Your task to perform on an android device: Show me productivity apps on the Play Store Image 0: 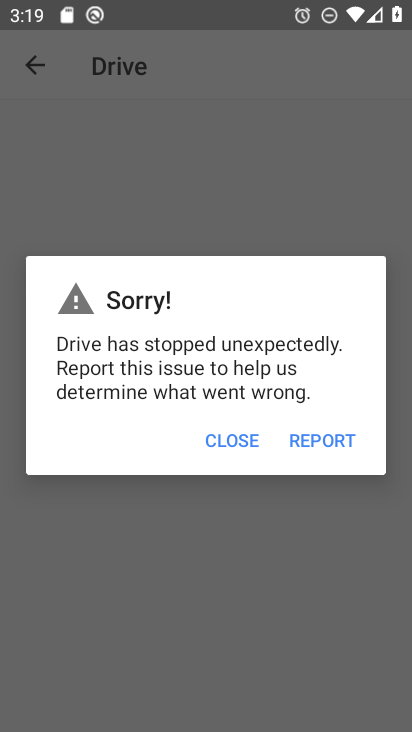
Step 0: press back button
Your task to perform on an android device: Show me productivity apps on the Play Store Image 1: 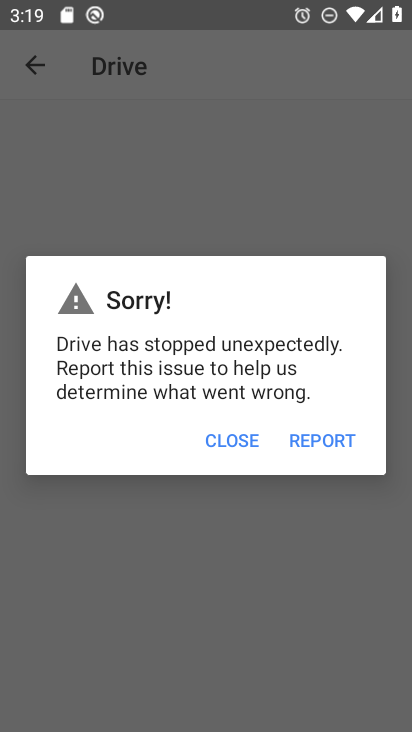
Step 1: press home button
Your task to perform on an android device: Show me productivity apps on the Play Store Image 2: 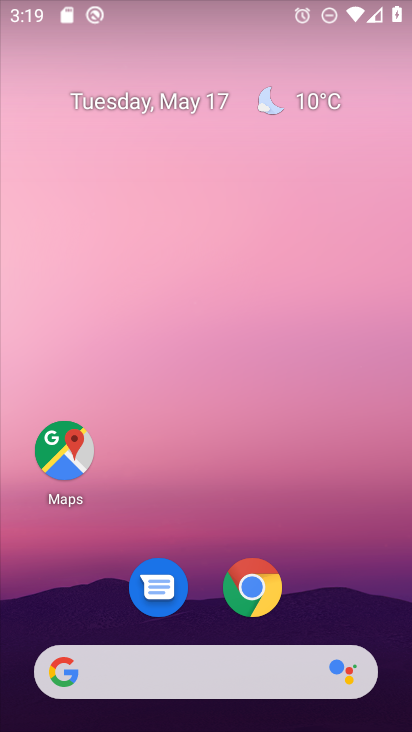
Step 2: drag from (276, 578) to (216, 51)
Your task to perform on an android device: Show me productivity apps on the Play Store Image 3: 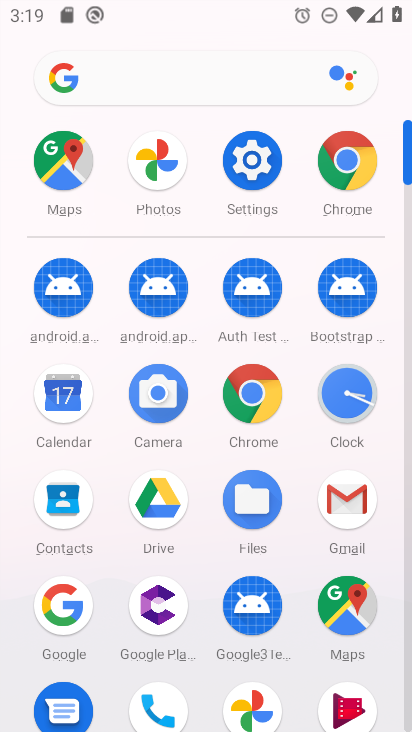
Step 3: drag from (0, 613) to (0, 255)
Your task to perform on an android device: Show me productivity apps on the Play Store Image 4: 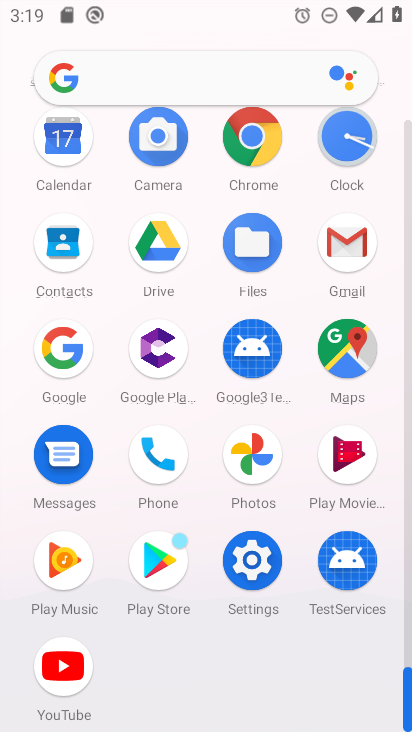
Step 4: click (158, 552)
Your task to perform on an android device: Show me productivity apps on the Play Store Image 5: 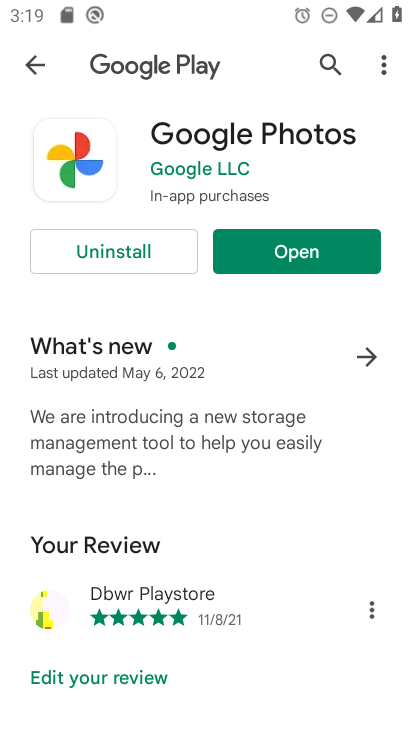
Step 5: click (51, 74)
Your task to perform on an android device: Show me productivity apps on the Play Store Image 6: 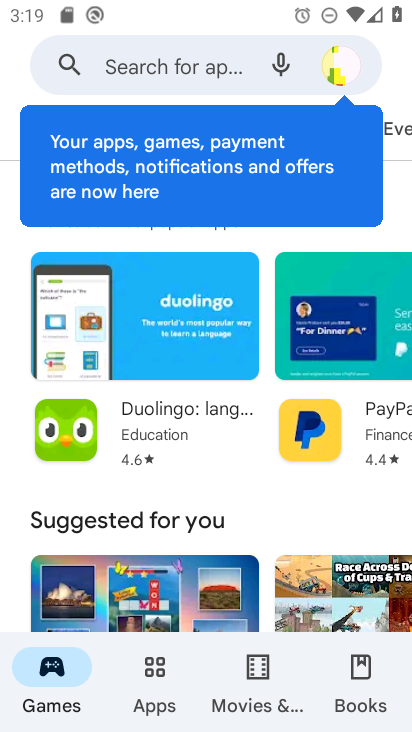
Step 6: click (159, 679)
Your task to perform on an android device: Show me productivity apps on the Play Store Image 7: 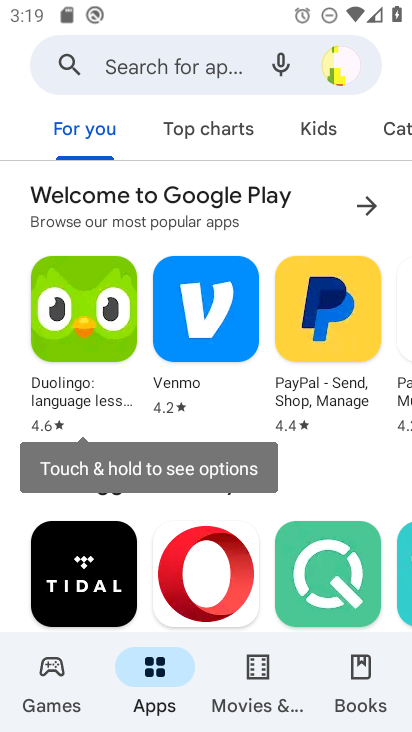
Step 7: click (382, 128)
Your task to perform on an android device: Show me productivity apps on the Play Store Image 8: 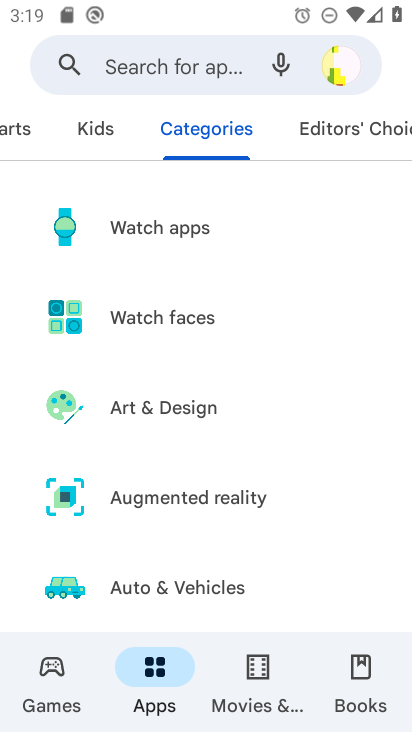
Step 8: drag from (282, 555) to (285, 82)
Your task to perform on an android device: Show me productivity apps on the Play Store Image 9: 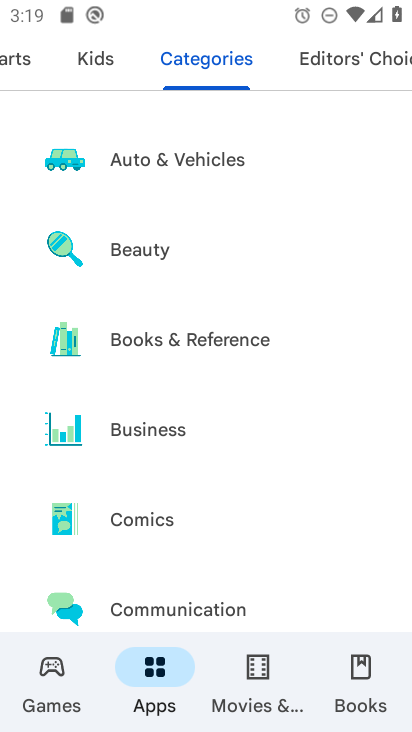
Step 9: drag from (261, 547) to (224, 127)
Your task to perform on an android device: Show me productivity apps on the Play Store Image 10: 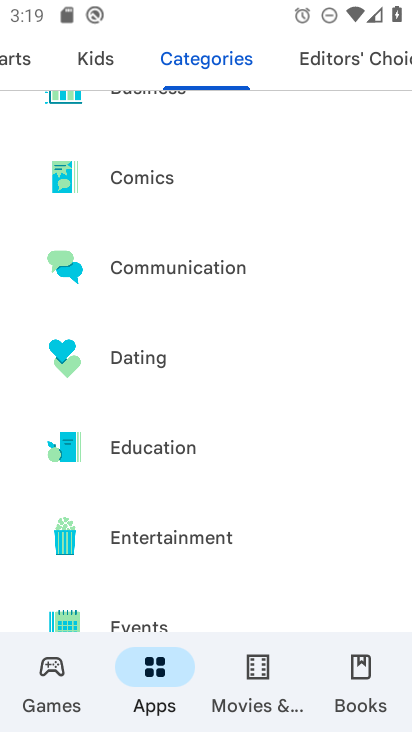
Step 10: drag from (255, 557) to (247, 173)
Your task to perform on an android device: Show me productivity apps on the Play Store Image 11: 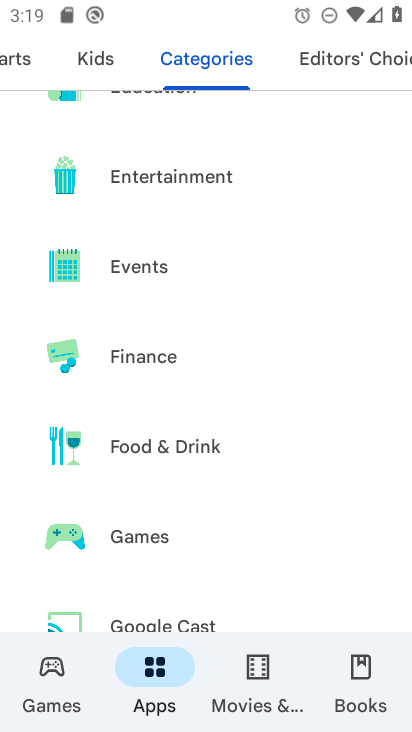
Step 11: drag from (226, 570) to (241, 73)
Your task to perform on an android device: Show me productivity apps on the Play Store Image 12: 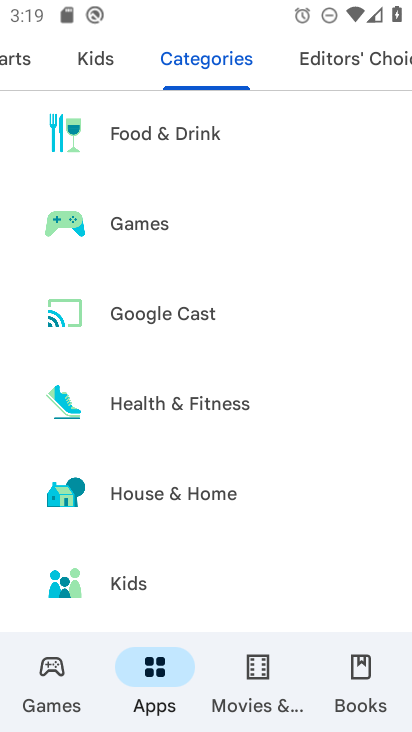
Step 12: drag from (231, 518) to (248, 185)
Your task to perform on an android device: Show me productivity apps on the Play Store Image 13: 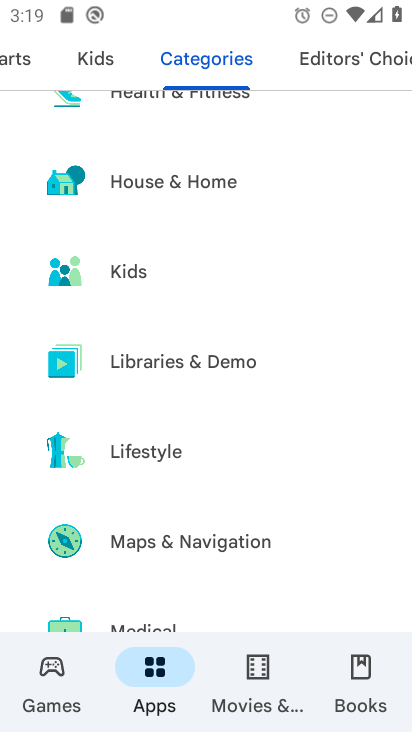
Step 13: drag from (273, 571) to (256, 189)
Your task to perform on an android device: Show me productivity apps on the Play Store Image 14: 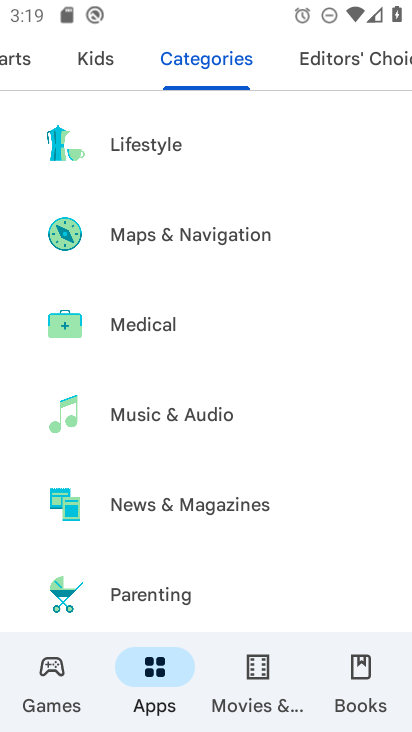
Step 14: drag from (265, 486) to (262, 139)
Your task to perform on an android device: Show me productivity apps on the Play Store Image 15: 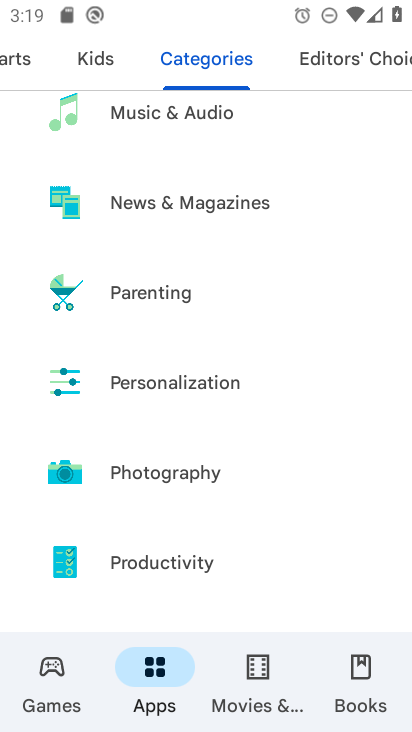
Step 15: click (199, 470)
Your task to perform on an android device: Show me productivity apps on the Play Store Image 16: 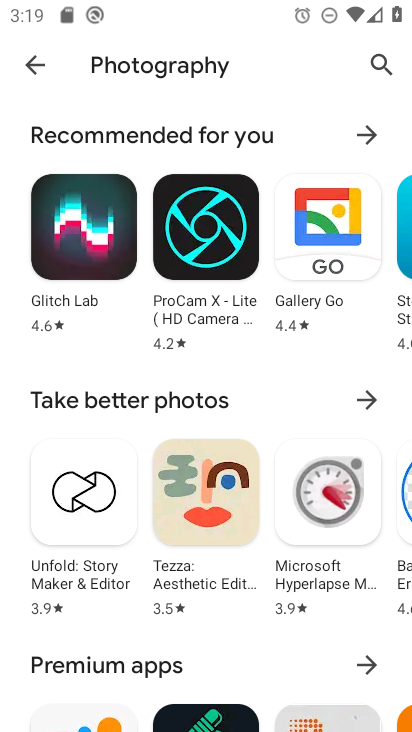
Step 16: click (38, 59)
Your task to perform on an android device: Show me productivity apps on the Play Store Image 17: 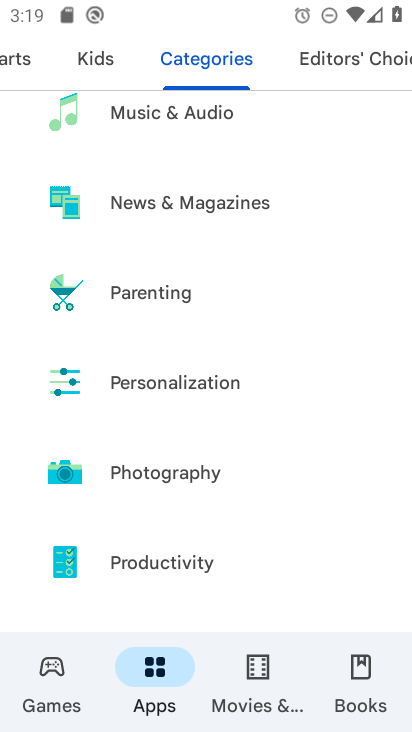
Step 17: click (195, 561)
Your task to perform on an android device: Show me productivity apps on the Play Store Image 18: 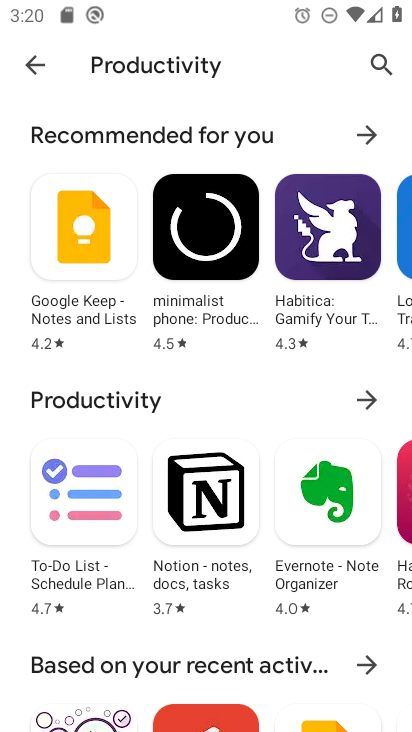
Step 18: task complete